Your task to perform on an android device: Do I have any events today? Image 0: 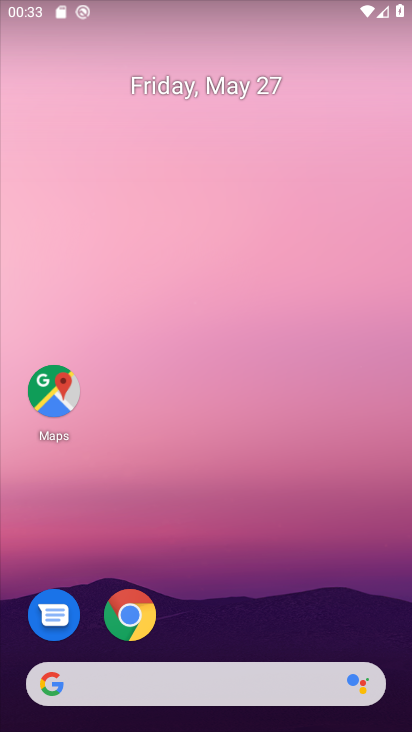
Step 0: drag from (364, 634) to (367, 278)
Your task to perform on an android device: Do I have any events today? Image 1: 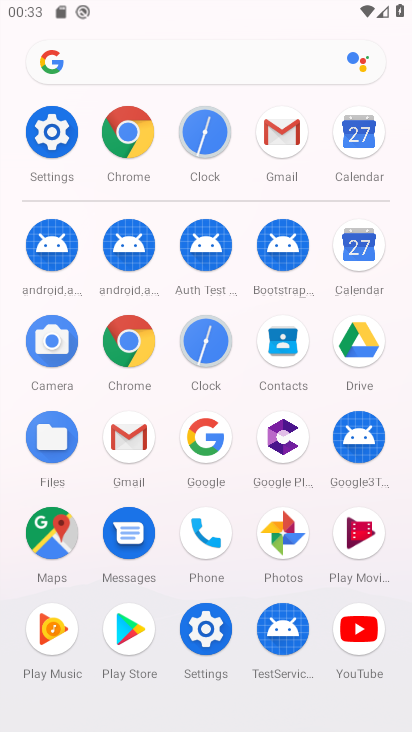
Step 1: click (361, 251)
Your task to perform on an android device: Do I have any events today? Image 2: 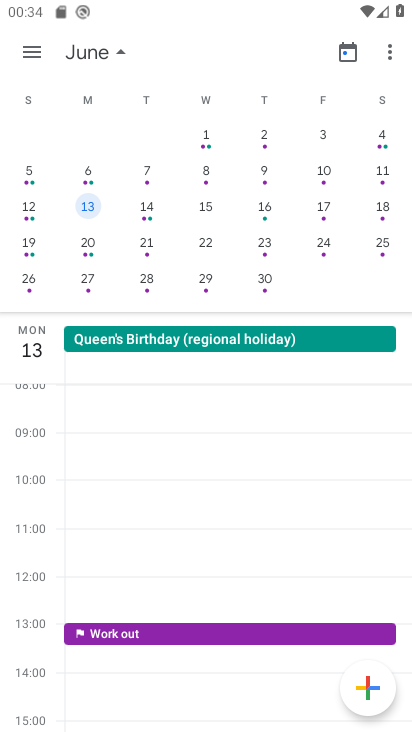
Step 2: drag from (24, 120) to (407, 217)
Your task to perform on an android device: Do I have any events today? Image 3: 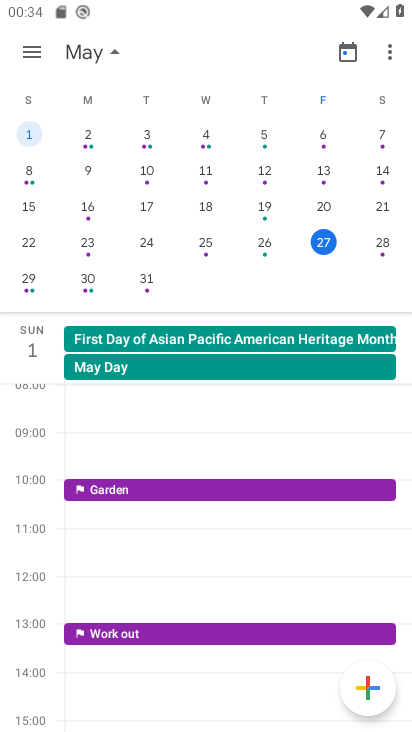
Step 3: click (331, 245)
Your task to perform on an android device: Do I have any events today? Image 4: 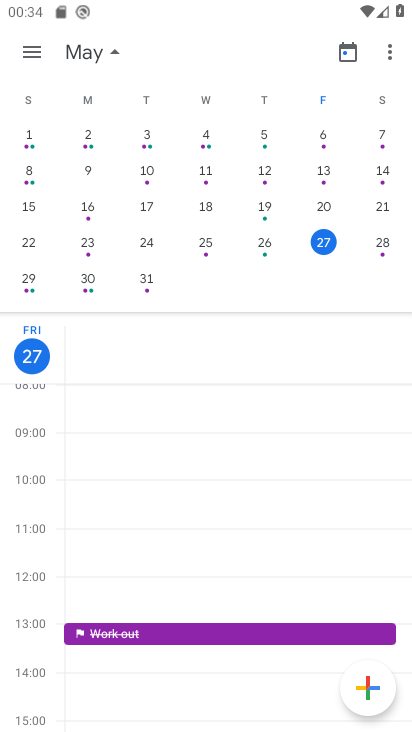
Step 4: click (36, 53)
Your task to perform on an android device: Do I have any events today? Image 5: 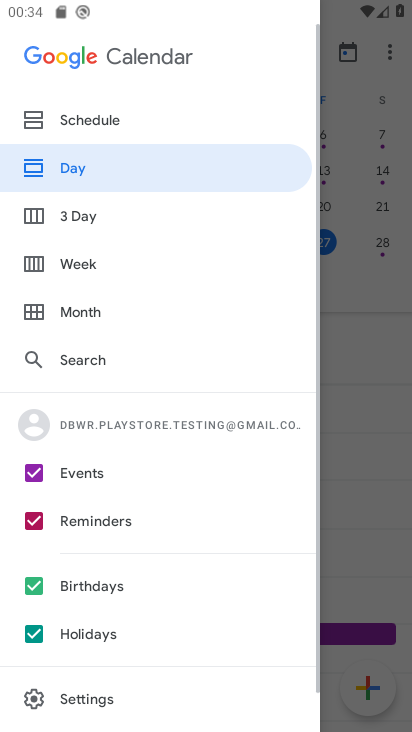
Step 5: click (104, 123)
Your task to perform on an android device: Do I have any events today? Image 6: 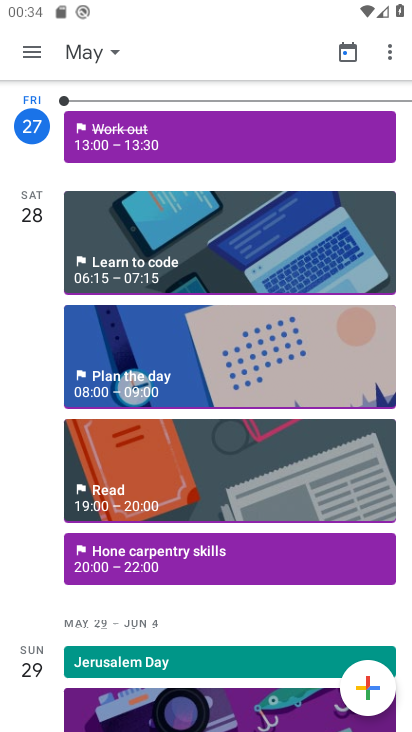
Step 6: click (241, 136)
Your task to perform on an android device: Do I have any events today? Image 7: 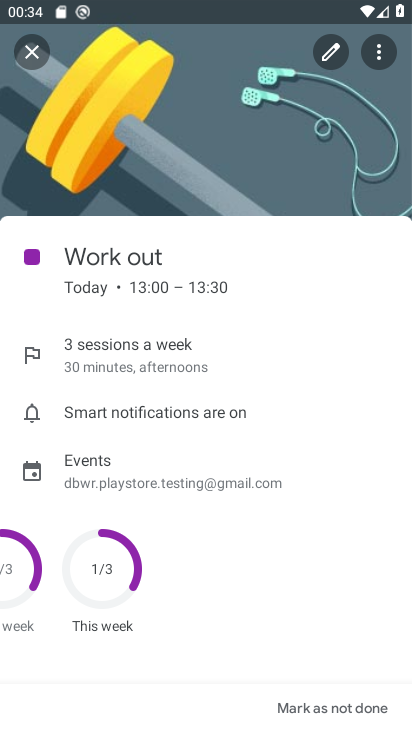
Step 7: task complete